Your task to perform on an android device: Go to calendar. Show me events next week Image 0: 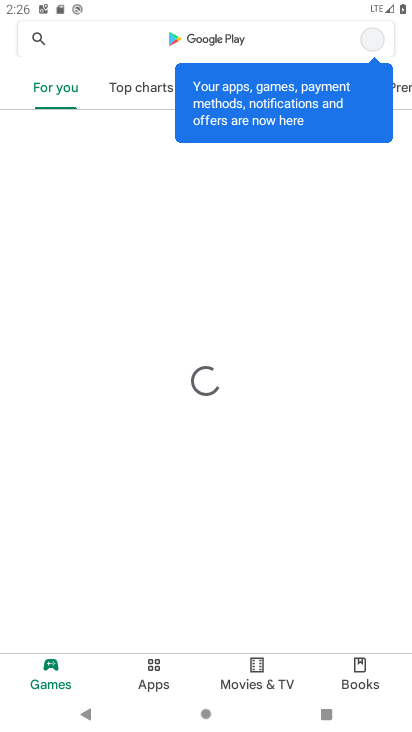
Step 0: press home button
Your task to perform on an android device: Go to calendar. Show me events next week Image 1: 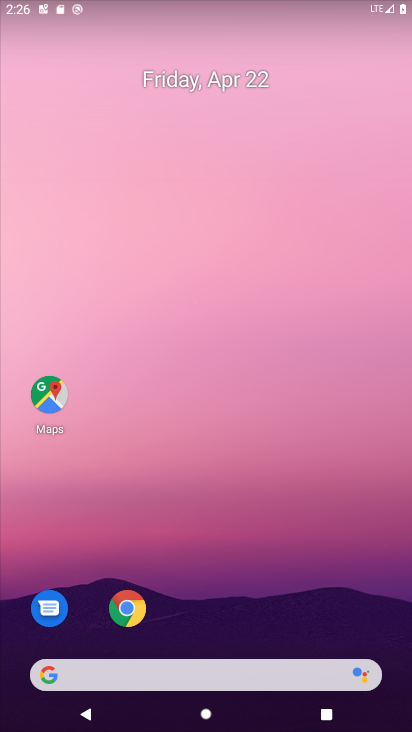
Step 1: drag from (255, 690) to (266, 213)
Your task to perform on an android device: Go to calendar. Show me events next week Image 2: 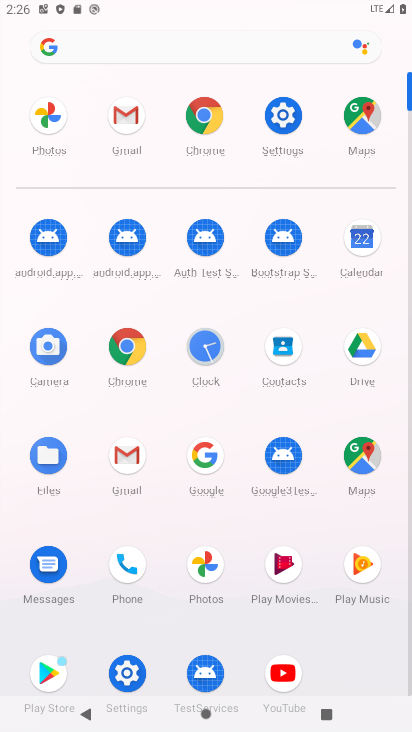
Step 2: click (365, 250)
Your task to perform on an android device: Go to calendar. Show me events next week Image 3: 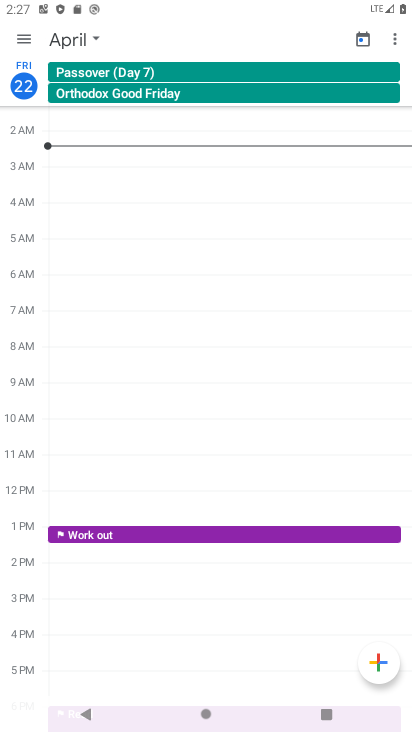
Step 3: click (31, 35)
Your task to perform on an android device: Go to calendar. Show me events next week Image 4: 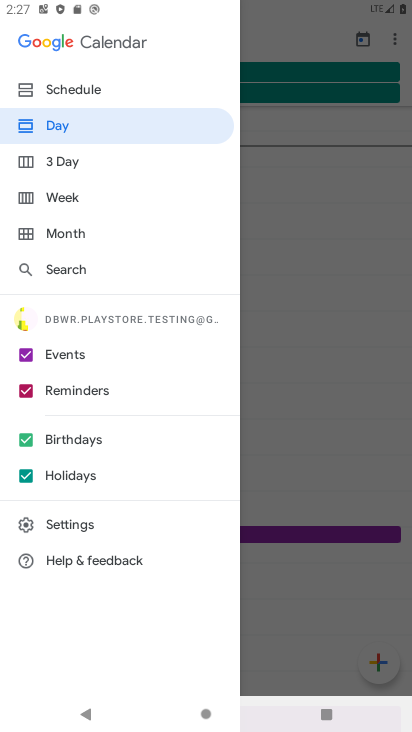
Step 4: click (53, 234)
Your task to perform on an android device: Go to calendar. Show me events next week Image 5: 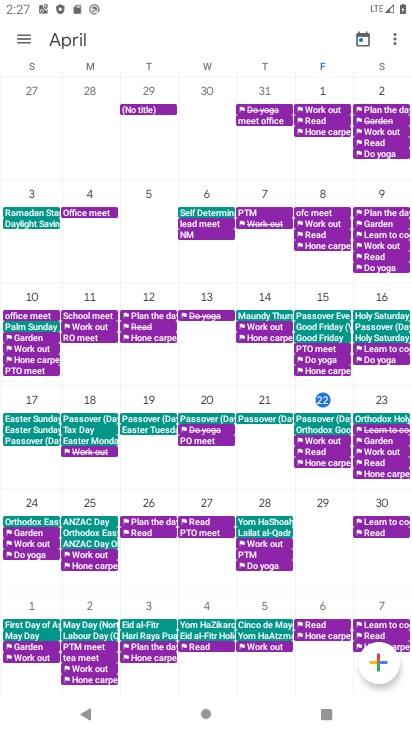
Step 5: click (83, 498)
Your task to perform on an android device: Go to calendar. Show me events next week Image 6: 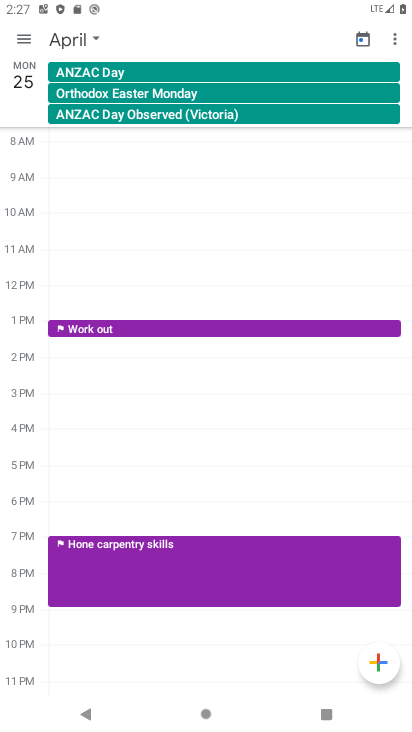
Step 6: task complete